Your task to perform on an android device: change keyboard looks Image 0: 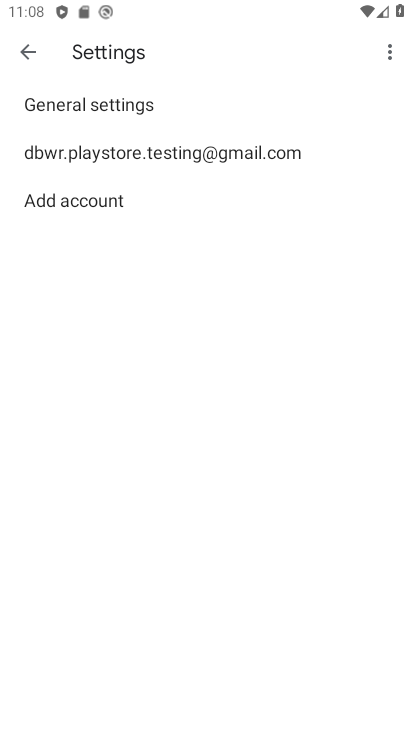
Step 0: press back button
Your task to perform on an android device: change keyboard looks Image 1: 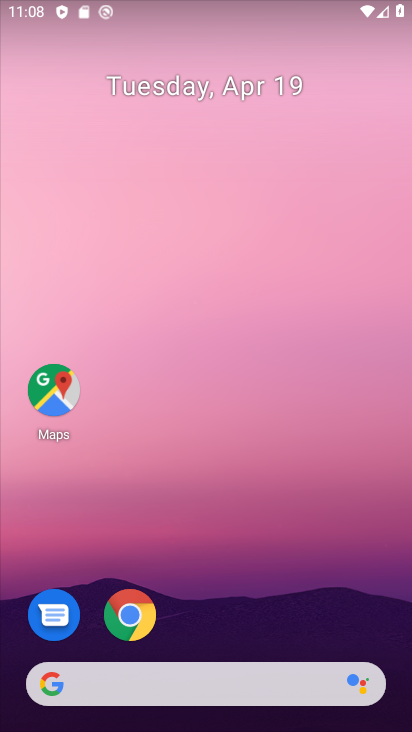
Step 1: drag from (188, 390) to (188, 294)
Your task to perform on an android device: change keyboard looks Image 2: 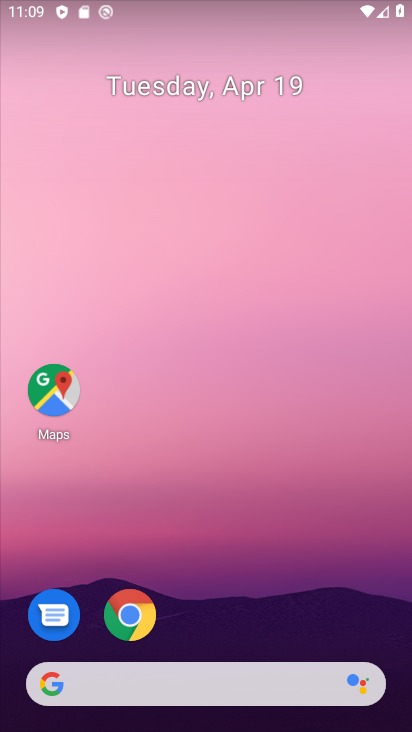
Step 2: drag from (231, 496) to (232, 221)
Your task to perform on an android device: change keyboard looks Image 3: 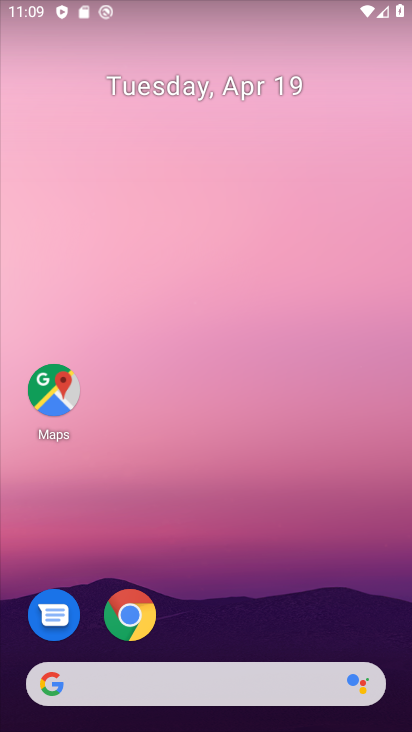
Step 3: drag from (189, 631) to (170, 286)
Your task to perform on an android device: change keyboard looks Image 4: 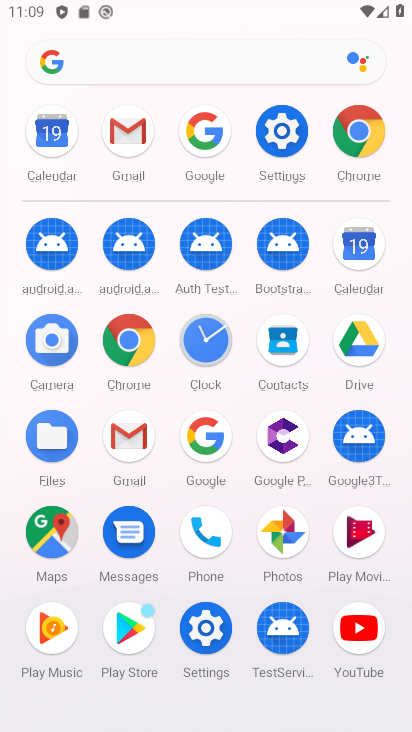
Step 4: click (283, 139)
Your task to perform on an android device: change keyboard looks Image 5: 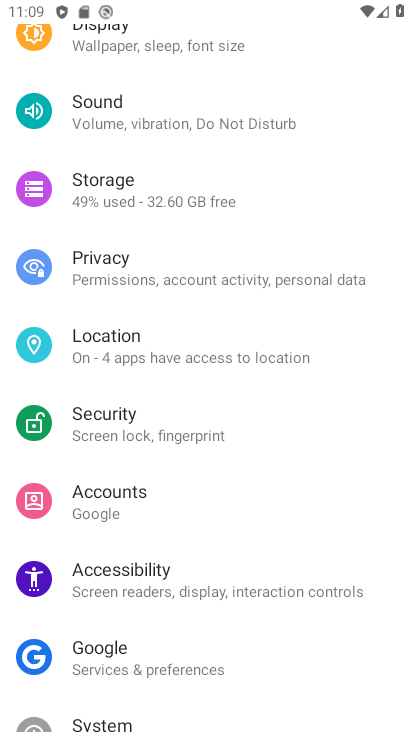
Step 5: drag from (183, 724) to (157, 389)
Your task to perform on an android device: change keyboard looks Image 6: 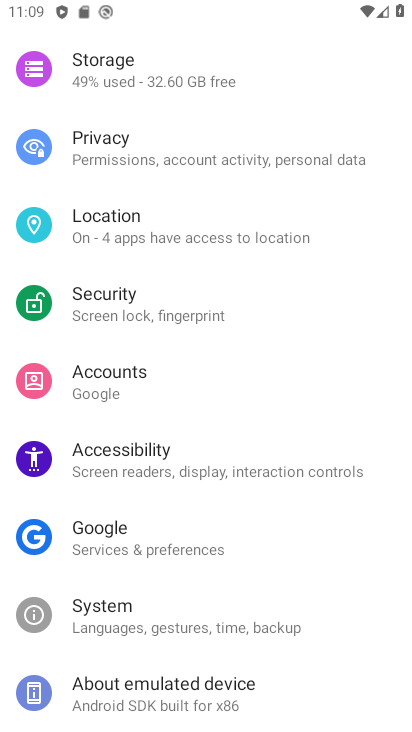
Step 6: click (120, 628)
Your task to perform on an android device: change keyboard looks Image 7: 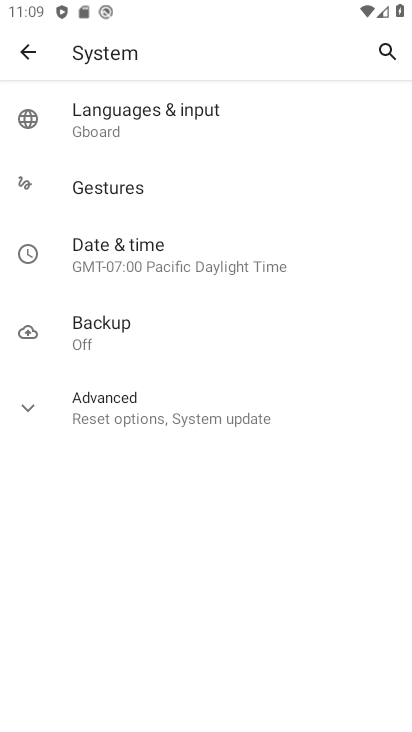
Step 7: click (114, 122)
Your task to perform on an android device: change keyboard looks Image 8: 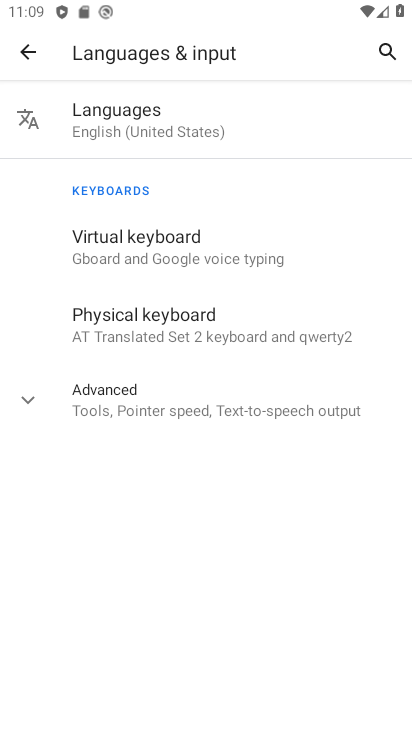
Step 8: click (136, 261)
Your task to perform on an android device: change keyboard looks Image 9: 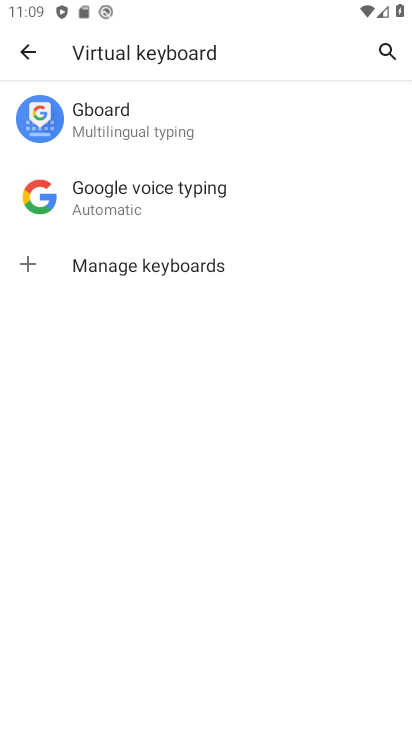
Step 9: click (113, 118)
Your task to perform on an android device: change keyboard looks Image 10: 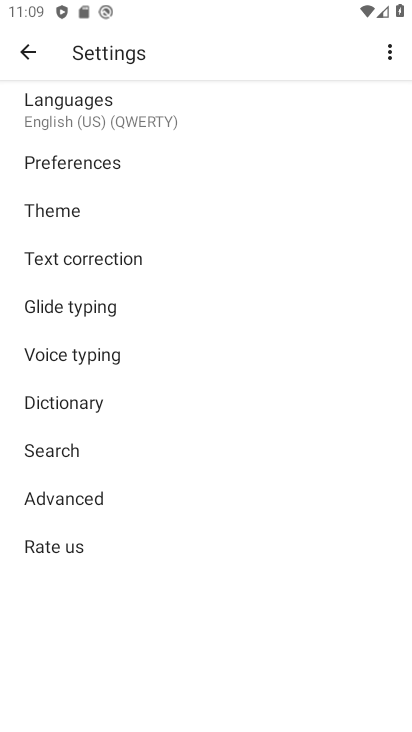
Step 10: click (46, 211)
Your task to perform on an android device: change keyboard looks Image 11: 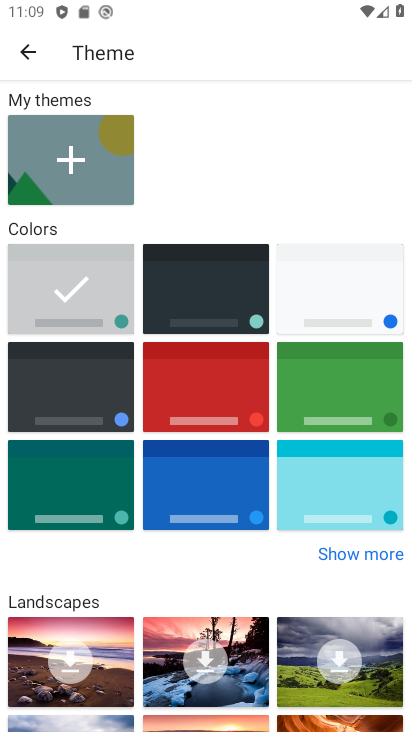
Step 11: click (206, 305)
Your task to perform on an android device: change keyboard looks Image 12: 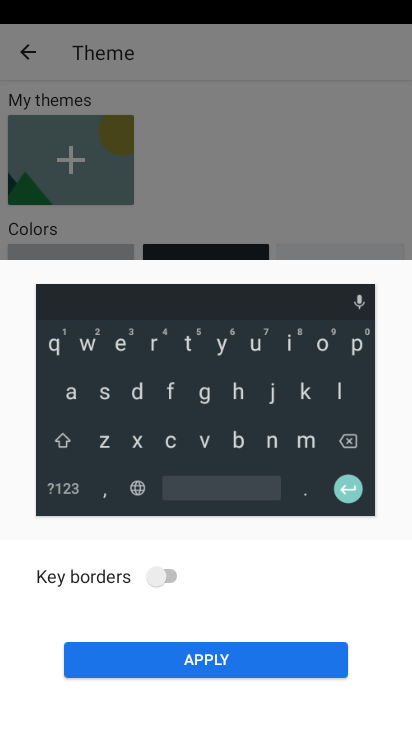
Step 12: click (158, 671)
Your task to perform on an android device: change keyboard looks Image 13: 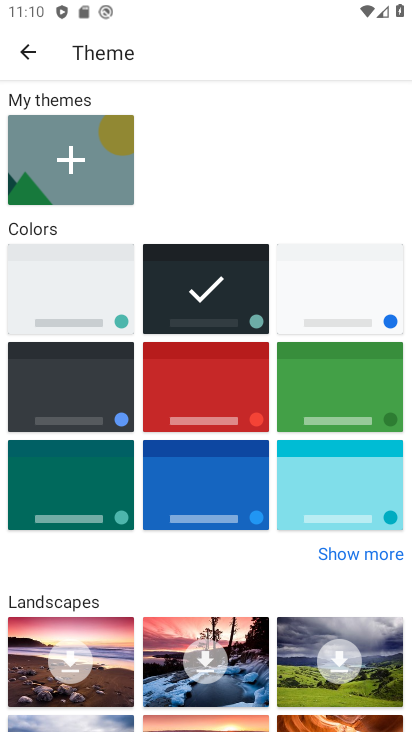
Step 13: task complete